Your task to perform on an android device: Add dell xps to the cart on target Image 0: 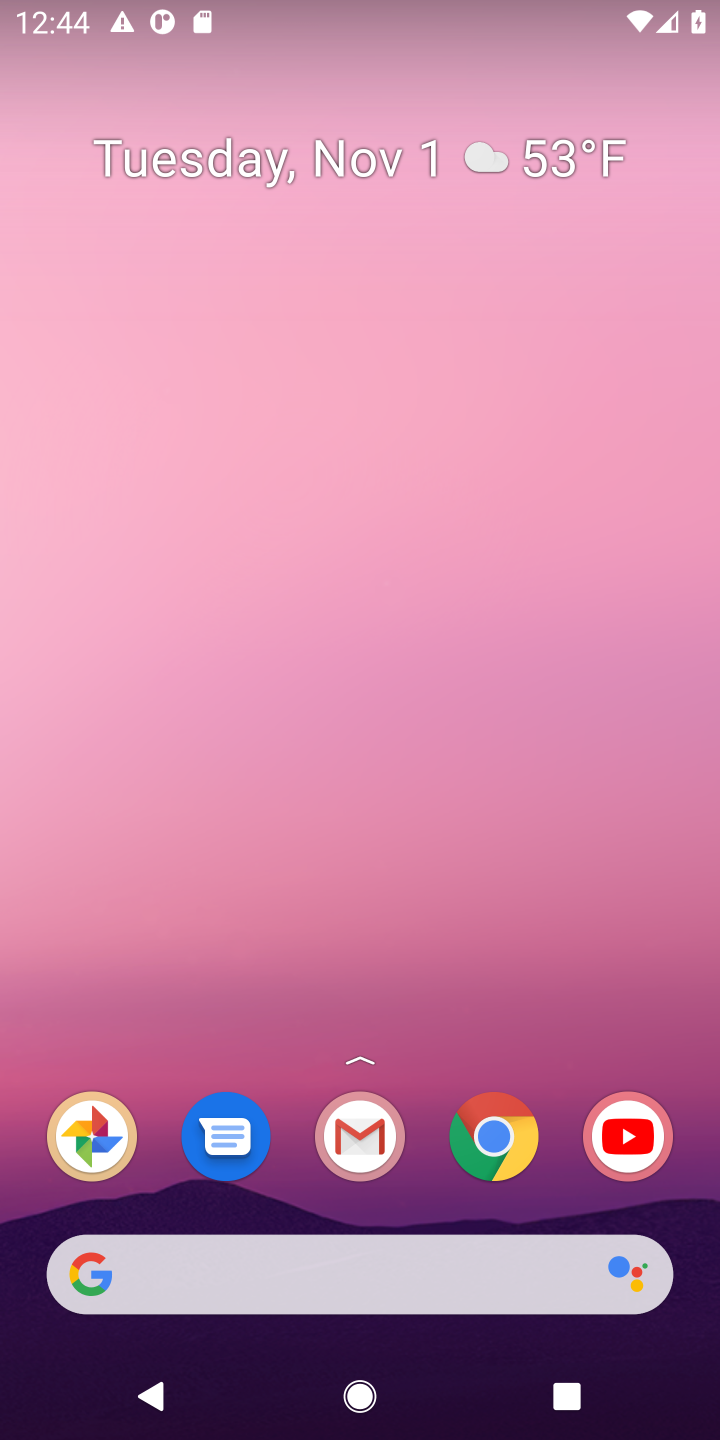
Step 0: press home button
Your task to perform on an android device: Add dell xps to the cart on target Image 1: 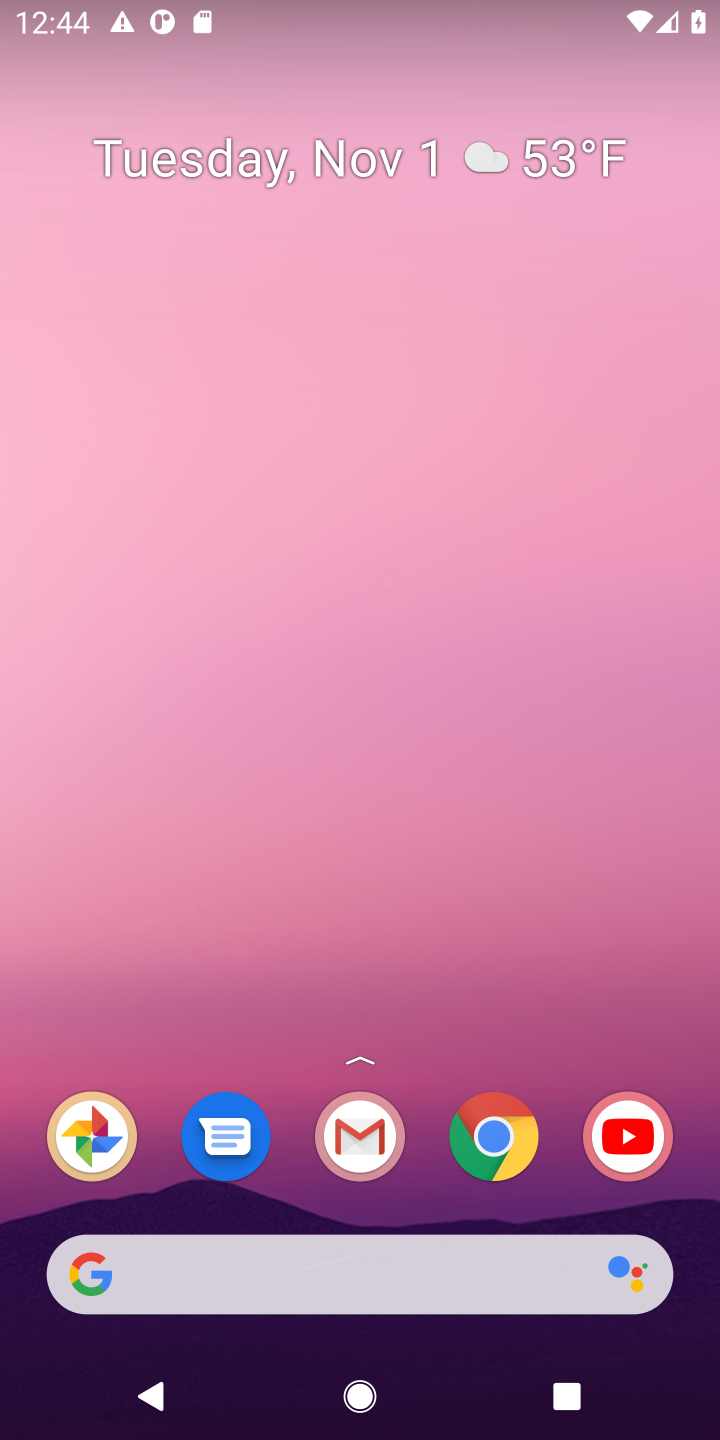
Step 1: click (154, 1268)
Your task to perform on an android device: Add dell xps to the cart on target Image 2: 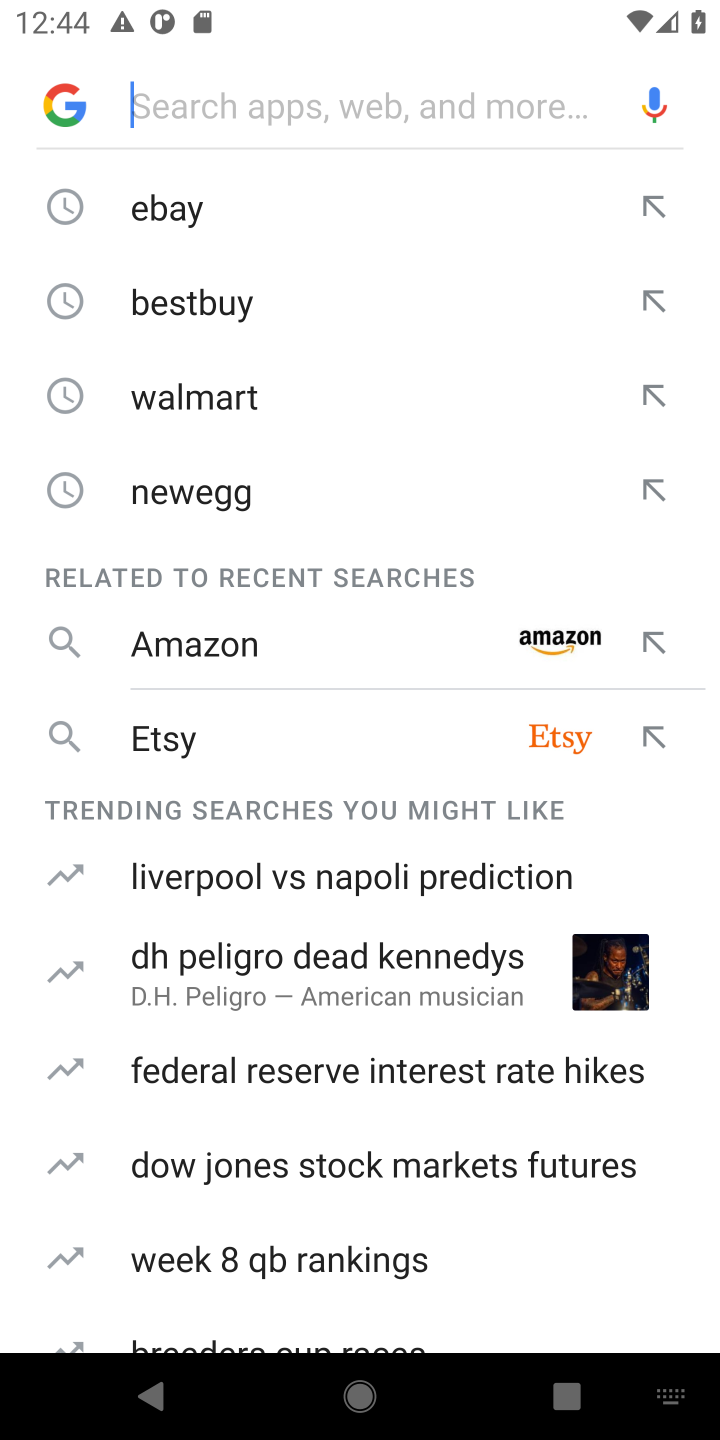
Step 2: type "target"
Your task to perform on an android device: Add dell xps to the cart on target Image 3: 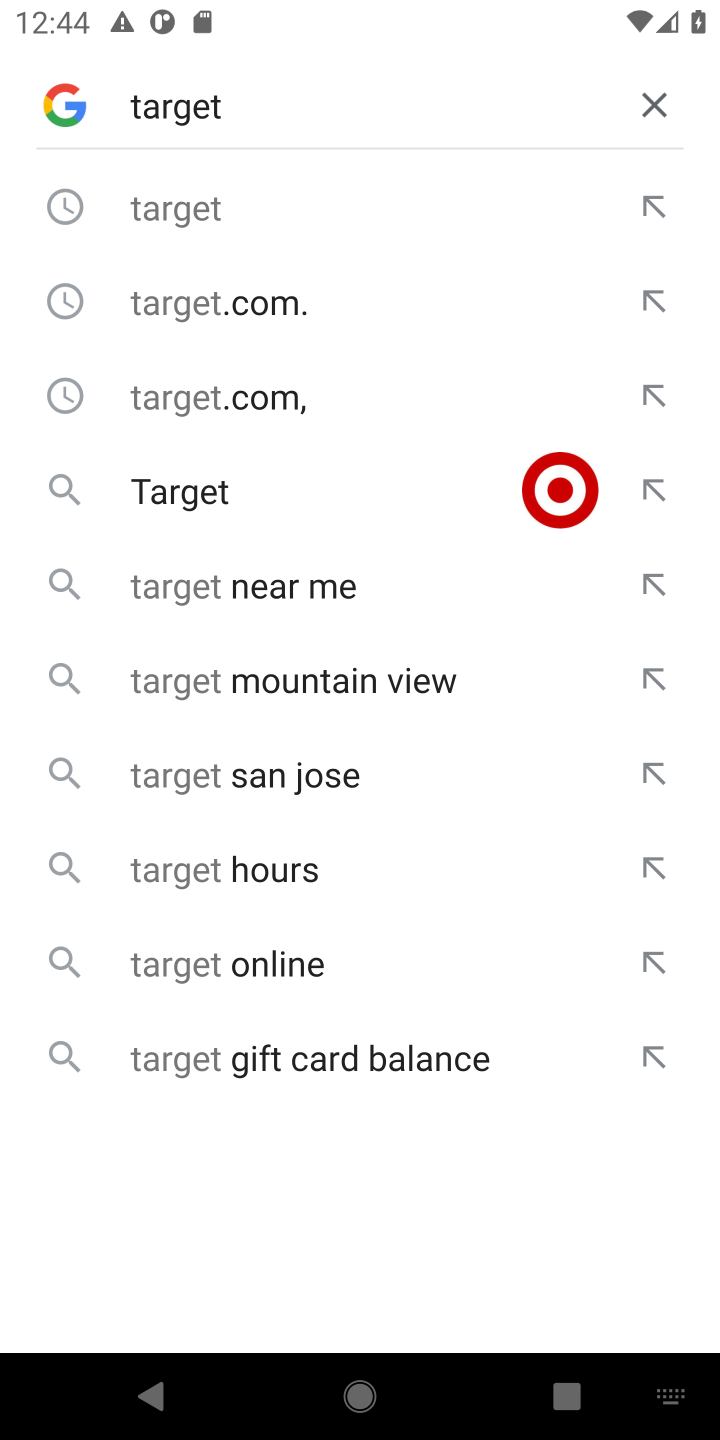
Step 3: press enter
Your task to perform on an android device: Add dell xps to the cart on target Image 4: 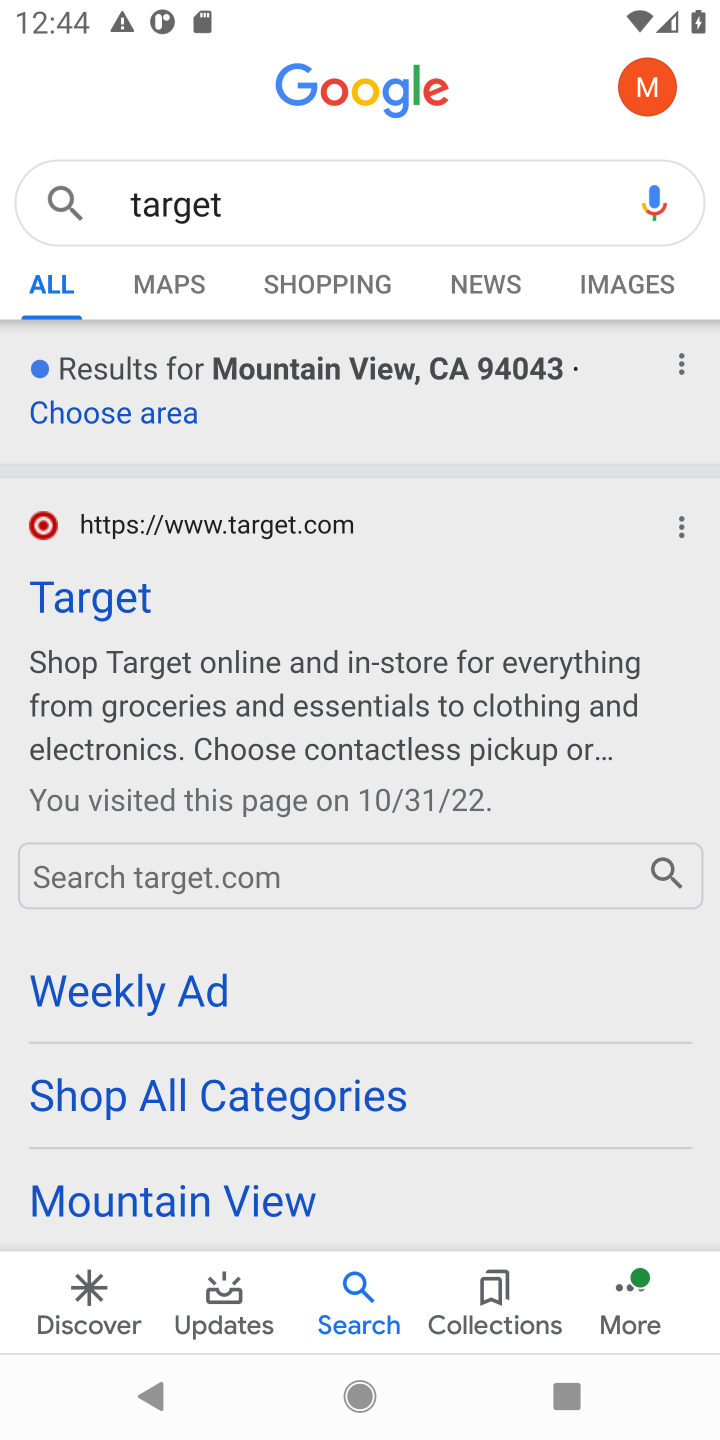
Step 4: click (104, 609)
Your task to perform on an android device: Add dell xps to the cart on target Image 5: 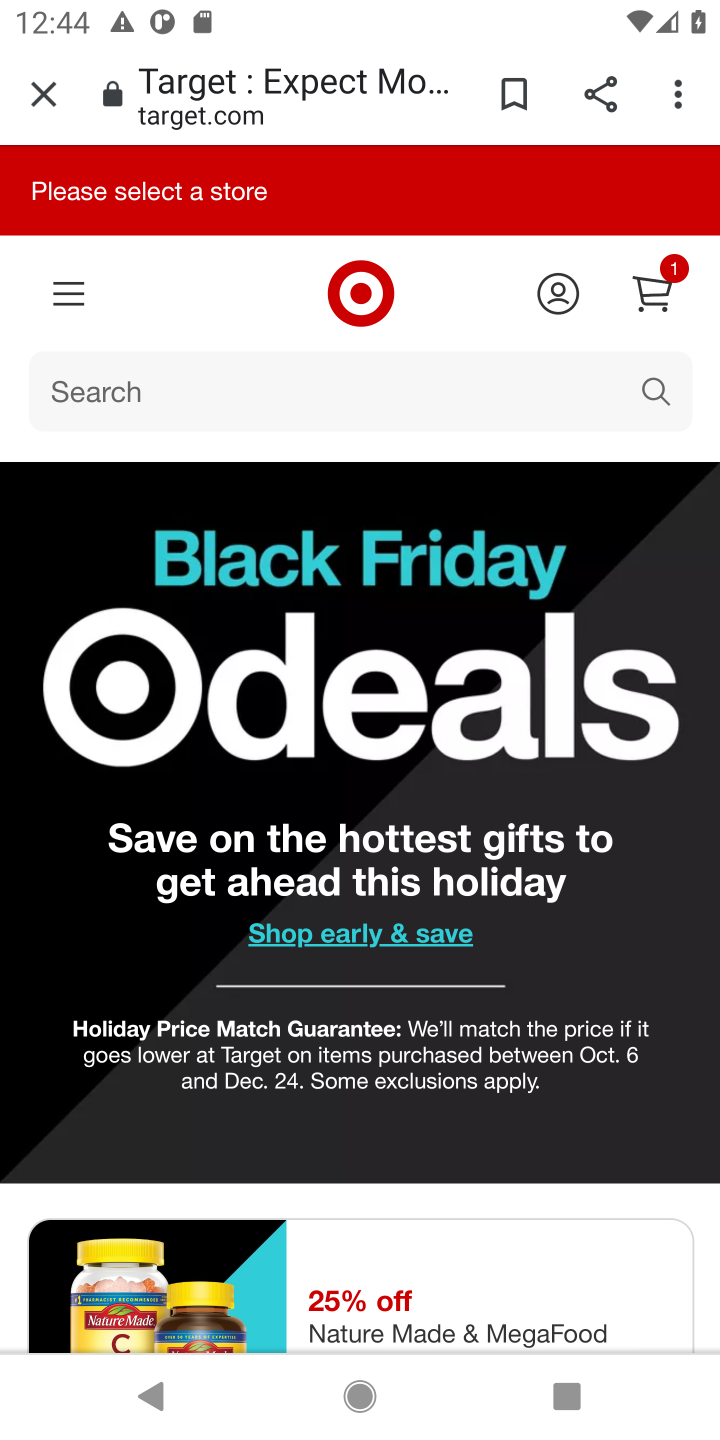
Step 5: click (109, 383)
Your task to perform on an android device: Add dell xps to the cart on target Image 6: 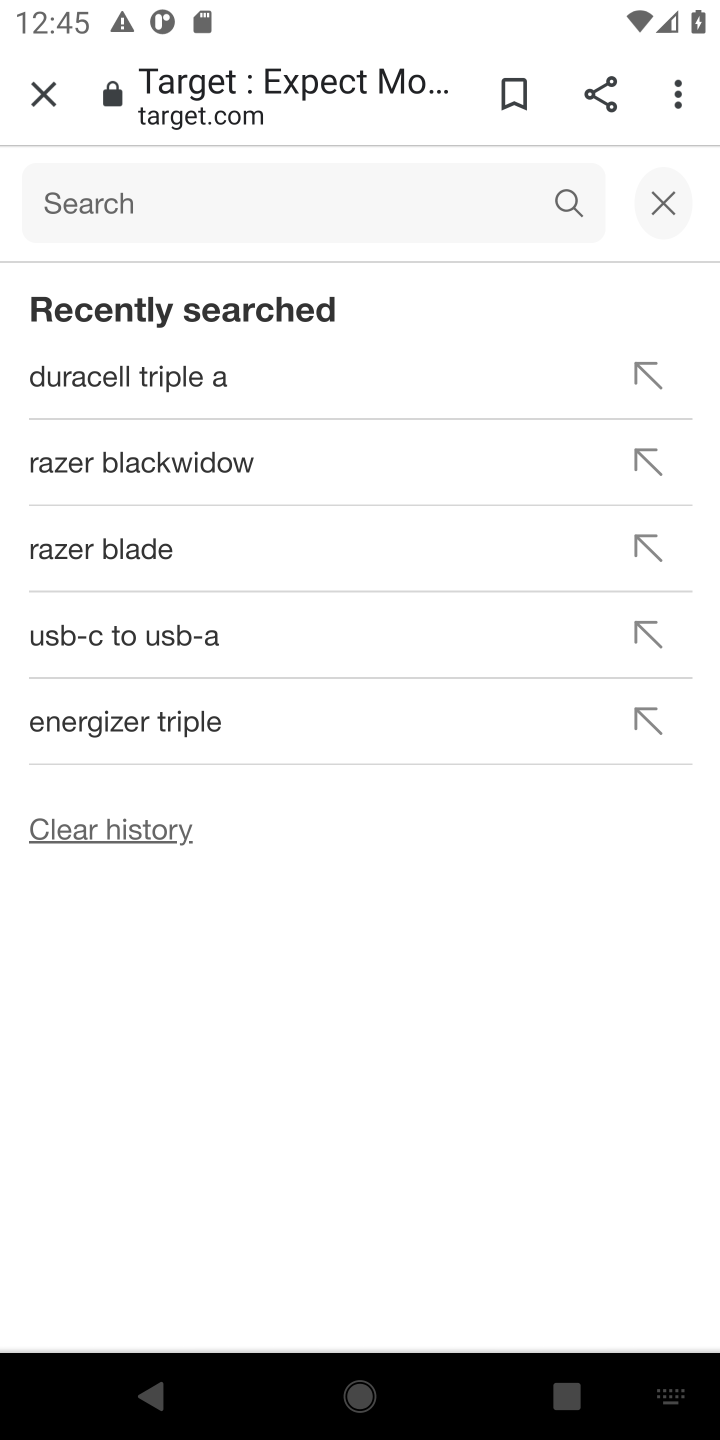
Step 6: type "dell xps"
Your task to perform on an android device: Add dell xps to the cart on target Image 7: 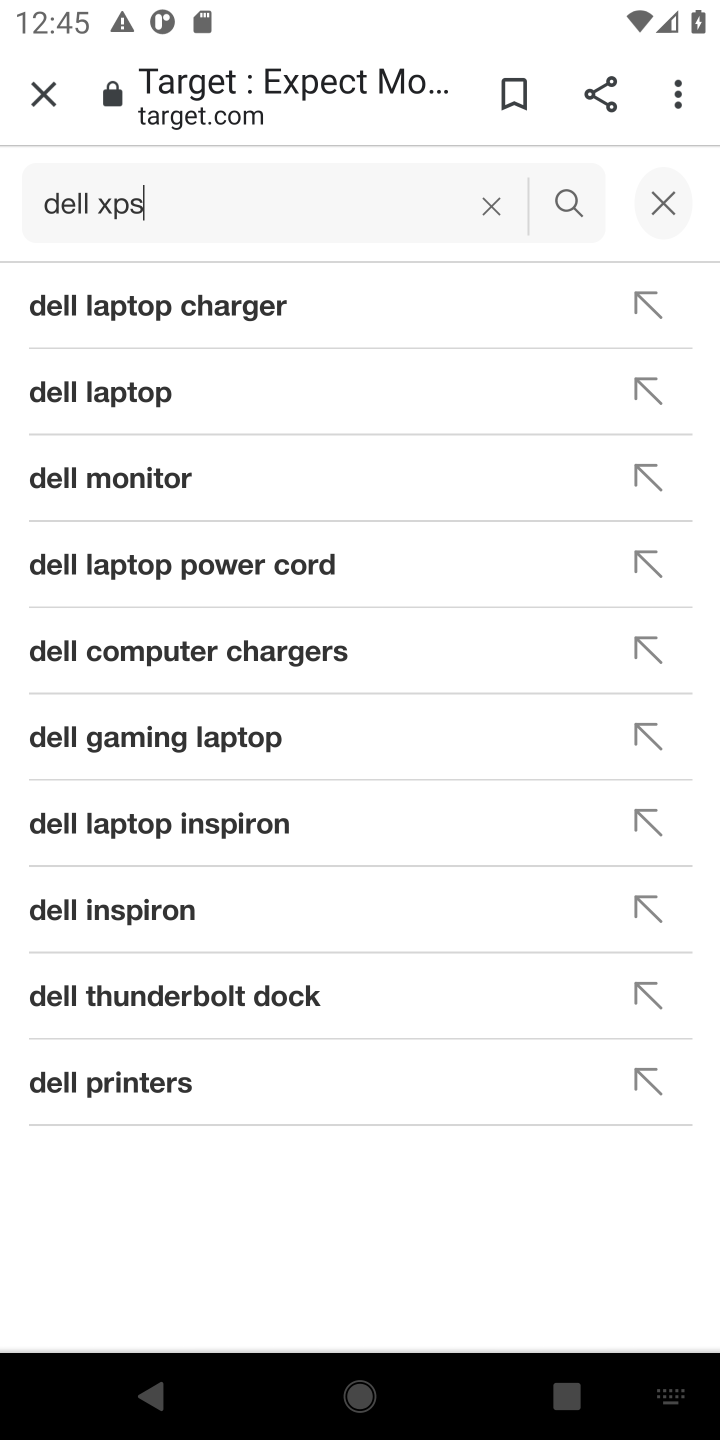
Step 7: click (576, 200)
Your task to perform on an android device: Add dell xps to the cart on target Image 8: 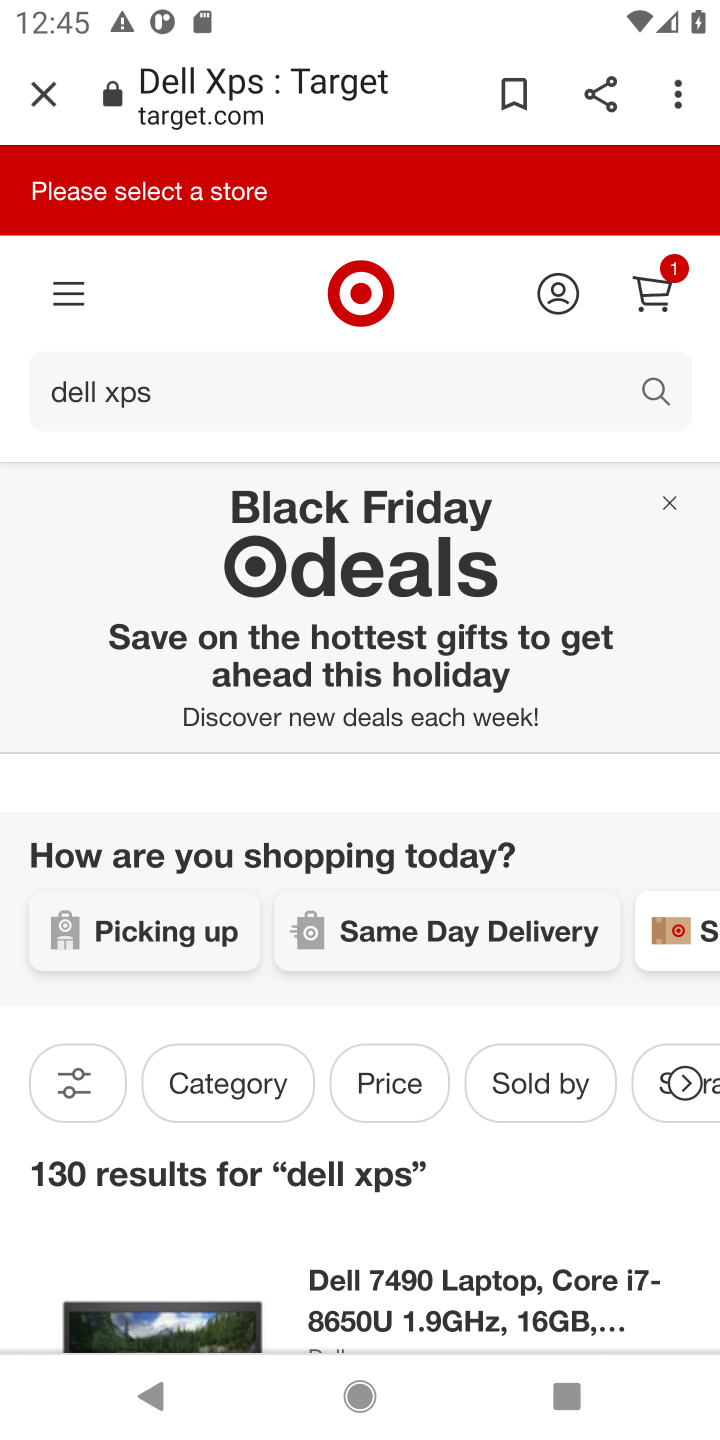
Step 8: task complete